Your task to perform on an android device: choose inbox layout in the gmail app Image 0: 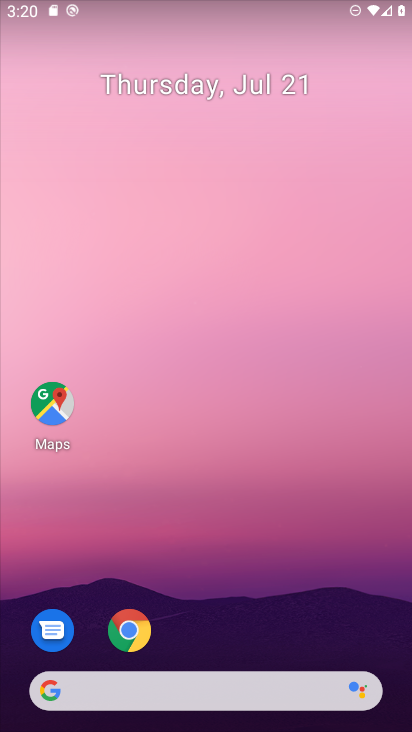
Step 0: drag from (220, 640) to (285, 101)
Your task to perform on an android device: choose inbox layout in the gmail app Image 1: 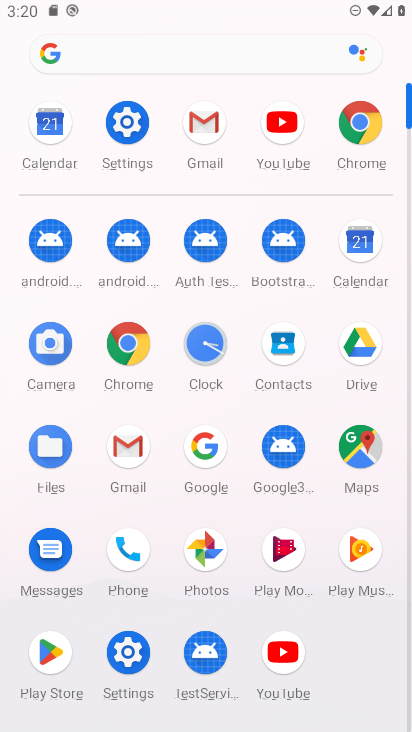
Step 1: click (201, 135)
Your task to perform on an android device: choose inbox layout in the gmail app Image 2: 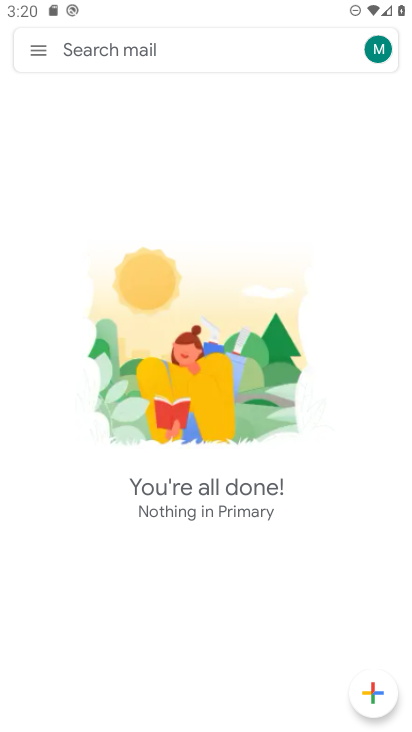
Step 2: click (54, 57)
Your task to perform on an android device: choose inbox layout in the gmail app Image 3: 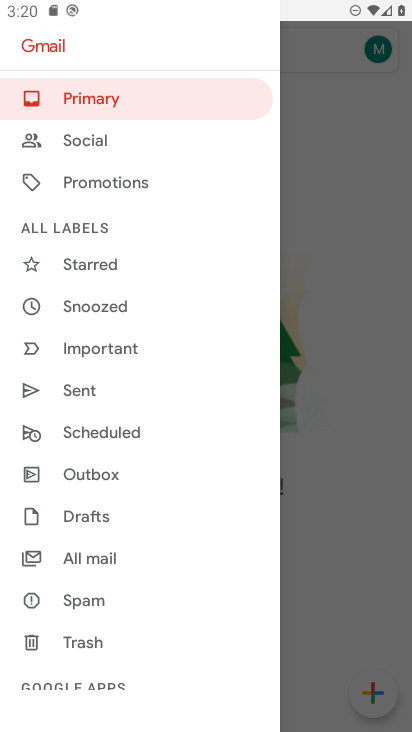
Step 3: click (120, 555)
Your task to perform on an android device: choose inbox layout in the gmail app Image 4: 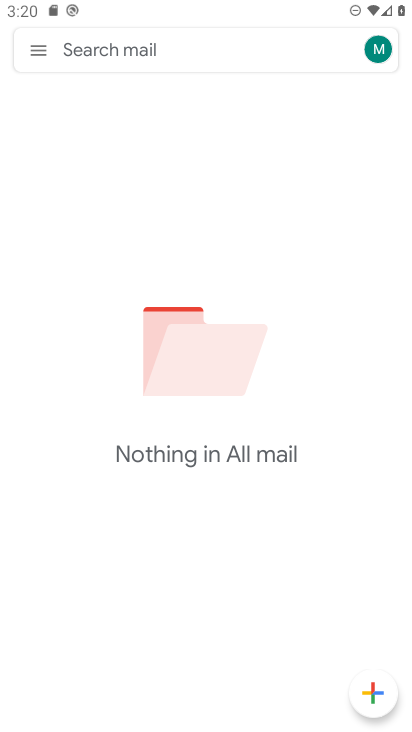
Step 4: click (38, 51)
Your task to perform on an android device: choose inbox layout in the gmail app Image 5: 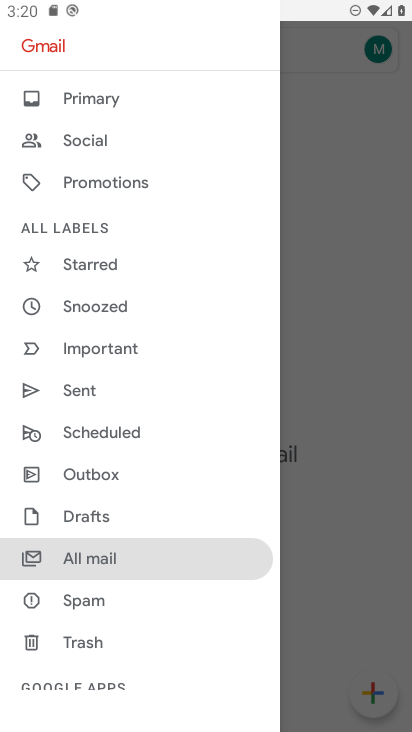
Step 5: click (120, 557)
Your task to perform on an android device: choose inbox layout in the gmail app Image 6: 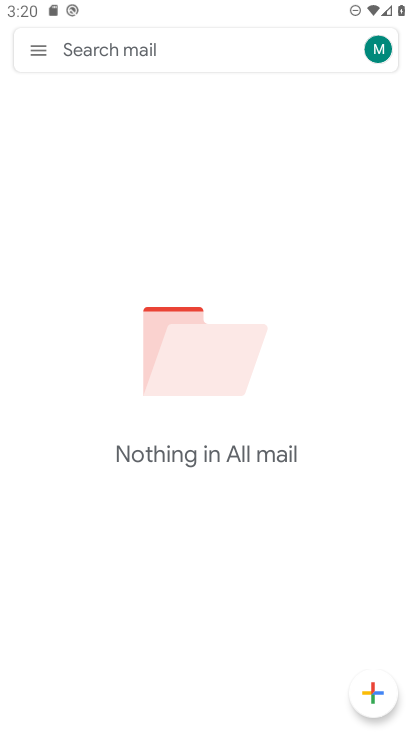
Step 6: click (35, 55)
Your task to perform on an android device: choose inbox layout in the gmail app Image 7: 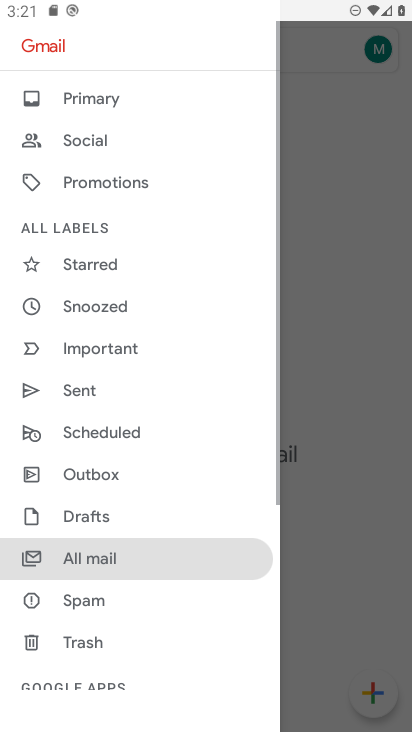
Step 7: drag from (101, 625) to (169, 161)
Your task to perform on an android device: choose inbox layout in the gmail app Image 8: 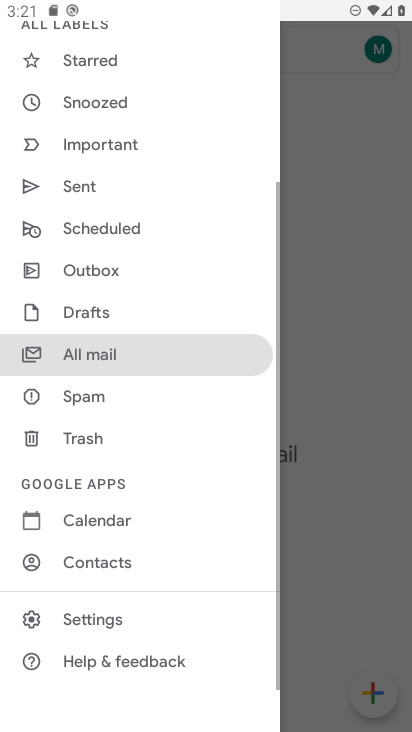
Step 8: click (92, 622)
Your task to perform on an android device: choose inbox layout in the gmail app Image 9: 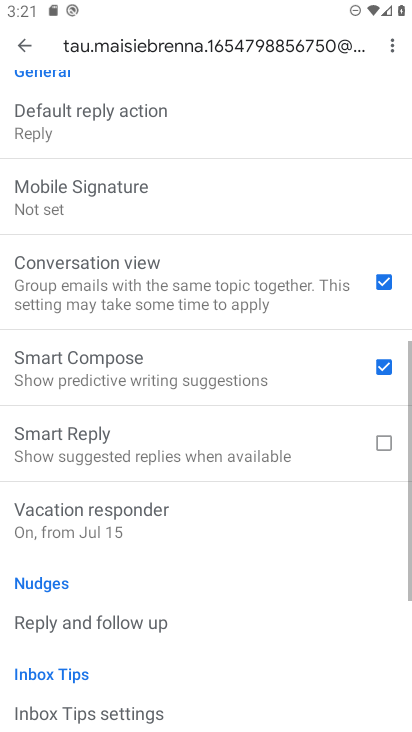
Step 9: drag from (153, 194) to (134, 718)
Your task to perform on an android device: choose inbox layout in the gmail app Image 10: 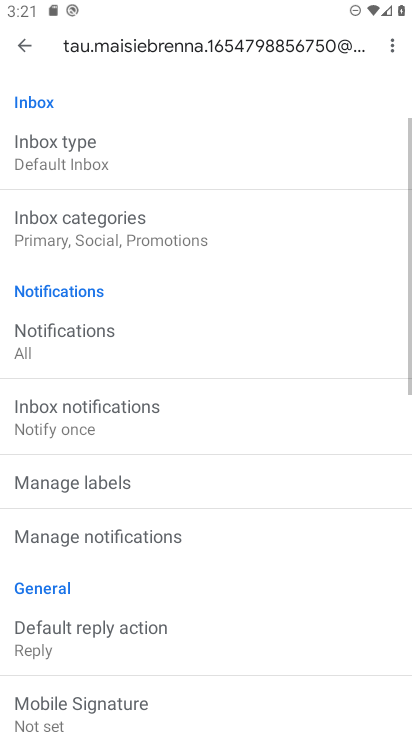
Step 10: click (125, 185)
Your task to perform on an android device: choose inbox layout in the gmail app Image 11: 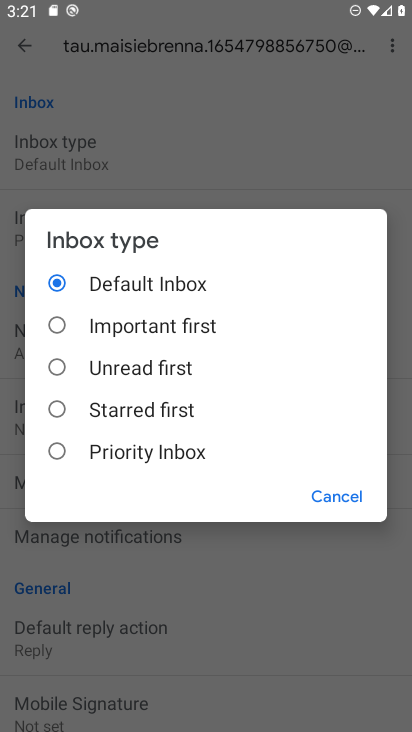
Step 11: click (60, 332)
Your task to perform on an android device: choose inbox layout in the gmail app Image 12: 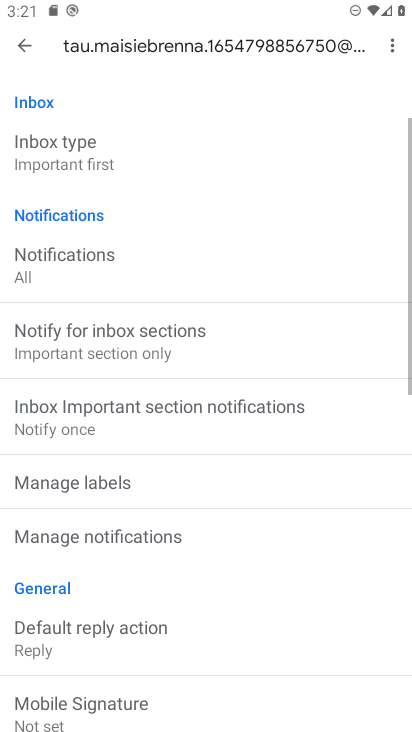
Step 12: task complete